Your task to perform on an android device: Search for sushi restaurants on Maps Image 0: 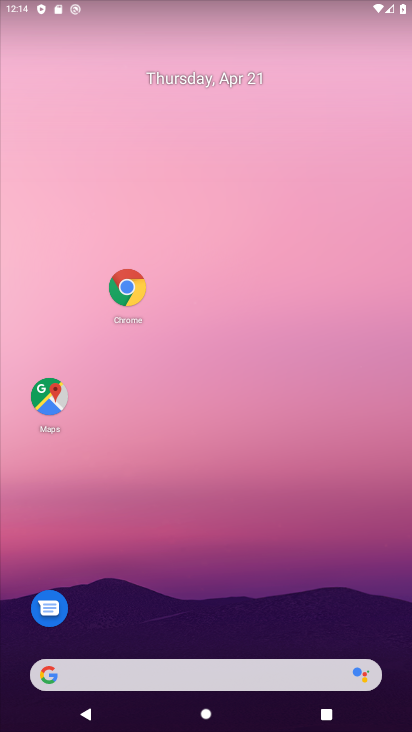
Step 0: click (53, 396)
Your task to perform on an android device: Search for sushi restaurants on Maps Image 1: 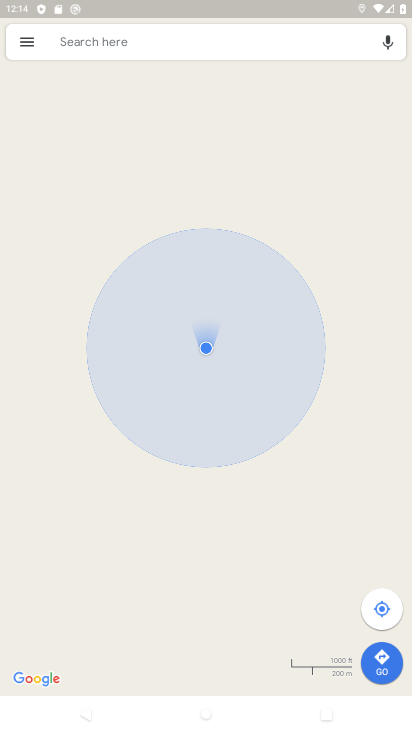
Step 1: click (107, 46)
Your task to perform on an android device: Search for sushi restaurants on Maps Image 2: 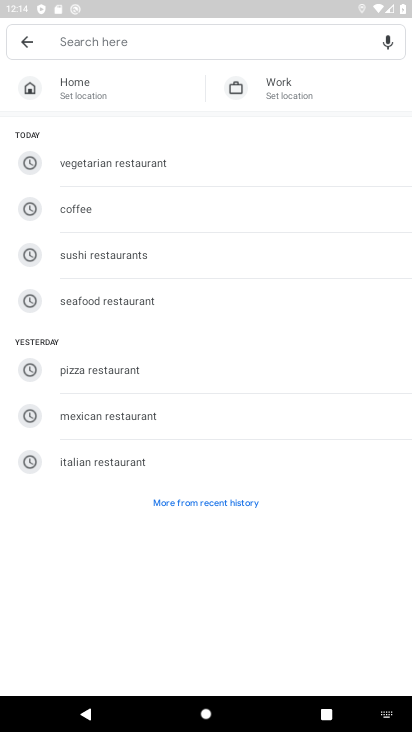
Step 2: click (78, 252)
Your task to perform on an android device: Search for sushi restaurants on Maps Image 3: 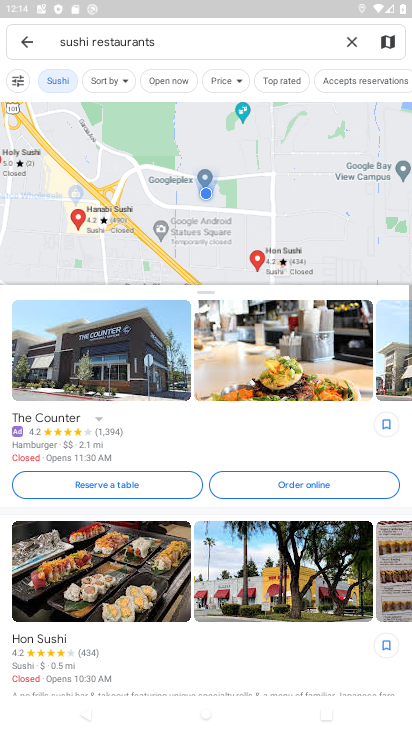
Step 3: task complete